Your task to perform on an android device: Go to Wikipedia Image 0: 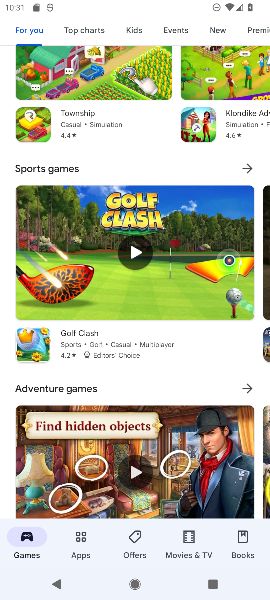
Step 0: drag from (144, 419) to (113, 49)
Your task to perform on an android device: Go to Wikipedia Image 1: 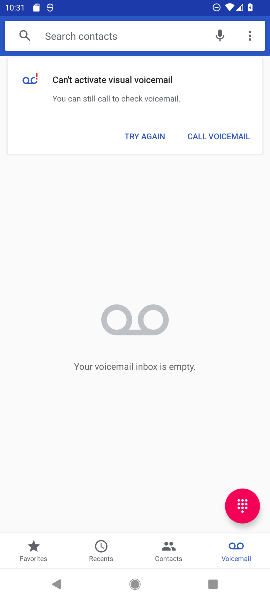
Step 1: press home button
Your task to perform on an android device: Go to Wikipedia Image 2: 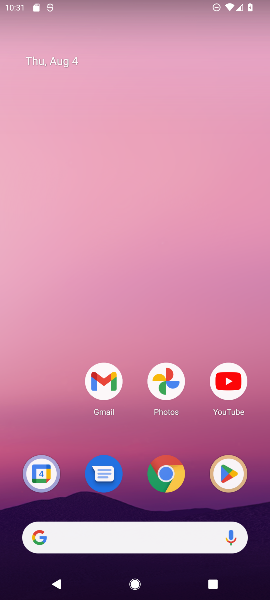
Step 2: drag from (119, 450) to (100, 23)
Your task to perform on an android device: Go to Wikipedia Image 3: 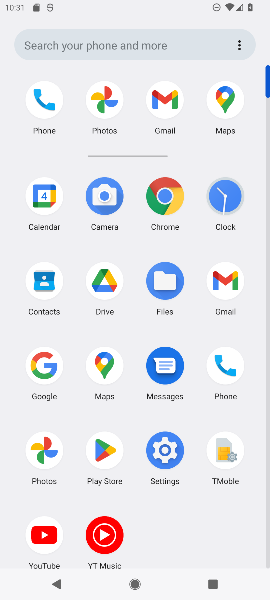
Step 3: drag from (141, 432) to (119, 133)
Your task to perform on an android device: Go to Wikipedia Image 4: 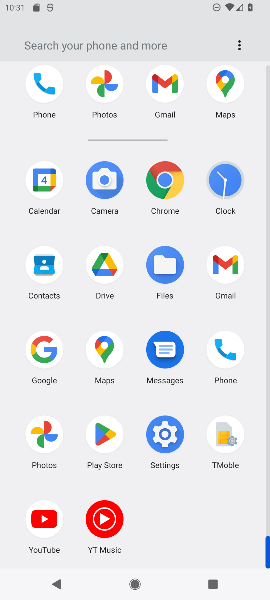
Step 4: click (166, 168)
Your task to perform on an android device: Go to Wikipedia Image 5: 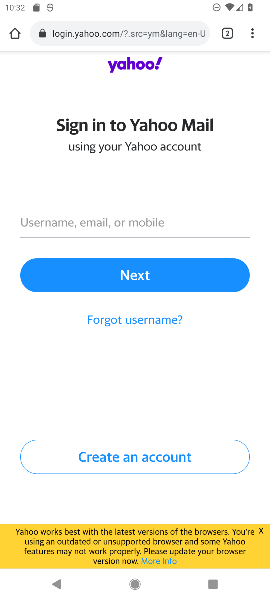
Step 5: click (131, 35)
Your task to perform on an android device: Go to Wikipedia Image 6: 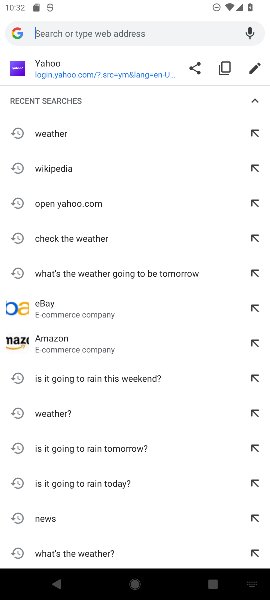
Step 6: click (50, 174)
Your task to perform on an android device: Go to Wikipedia Image 7: 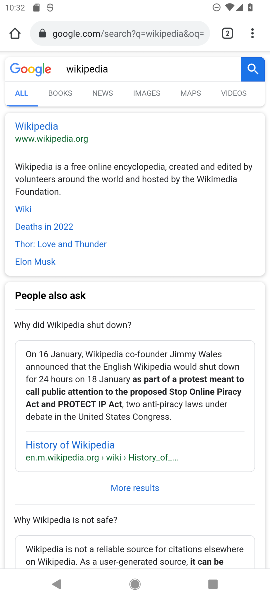
Step 7: click (54, 121)
Your task to perform on an android device: Go to Wikipedia Image 8: 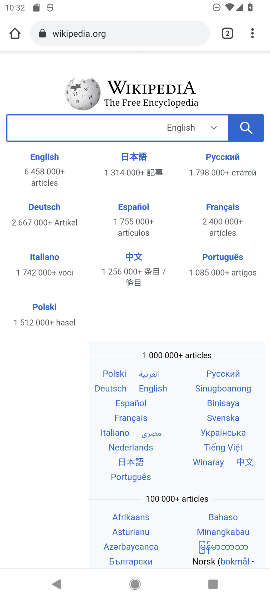
Step 8: task complete